Your task to perform on an android device: open app "Google Play Music" (install if not already installed) Image 0: 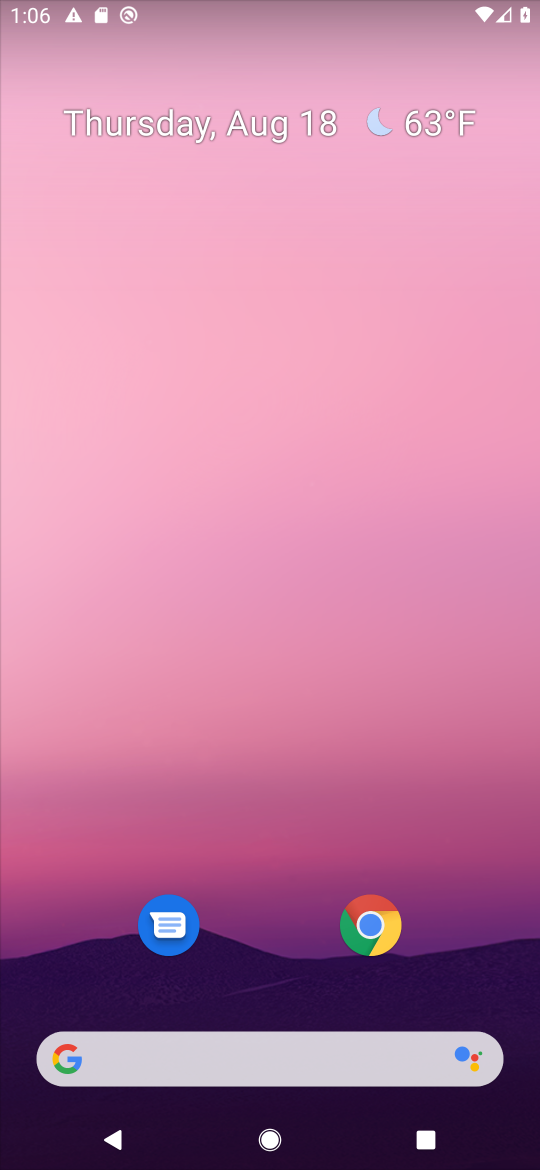
Step 0: drag from (144, 713) to (104, 273)
Your task to perform on an android device: open app "Google Play Music" (install if not already installed) Image 1: 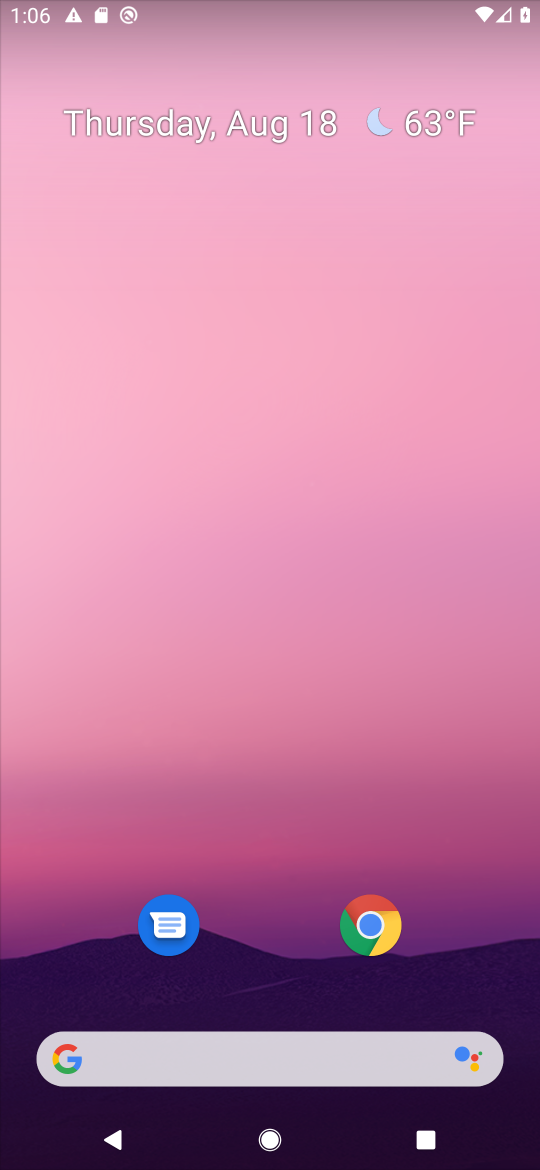
Step 1: drag from (193, 1011) to (174, 401)
Your task to perform on an android device: open app "Google Play Music" (install if not already installed) Image 2: 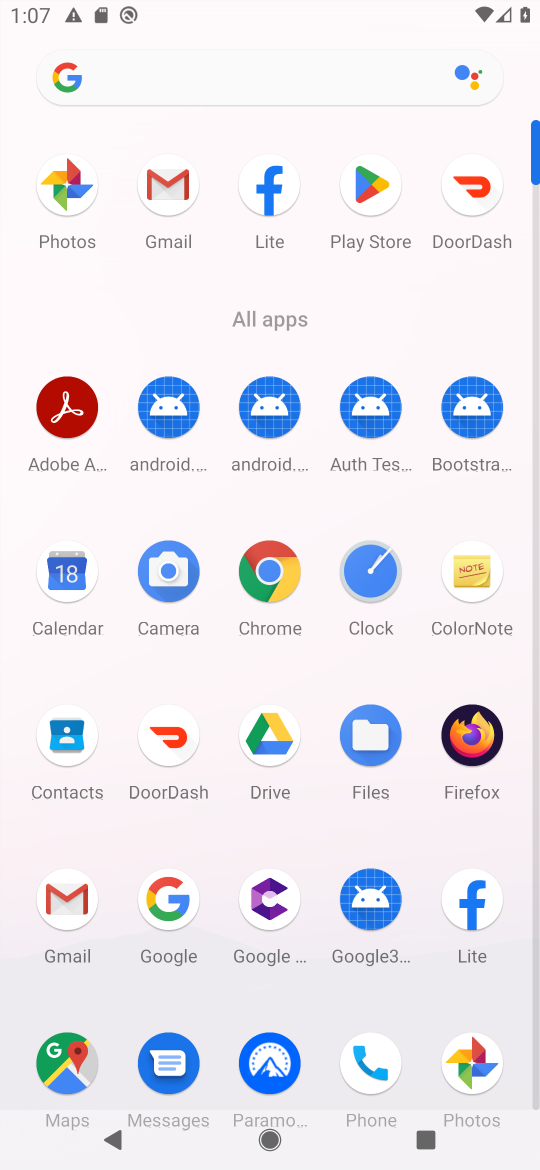
Step 2: click (105, 434)
Your task to perform on an android device: open app "Google Play Music" (install if not already installed) Image 3: 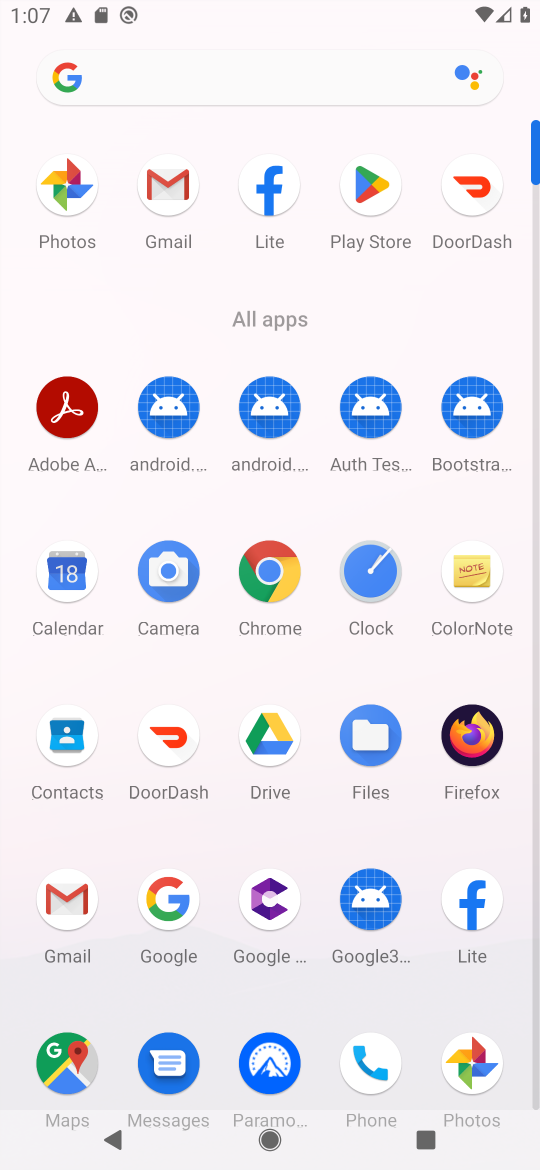
Step 3: click (105, 434)
Your task to perform on an android device: open app "Google Play Music" (install if not already installed) Image 4: 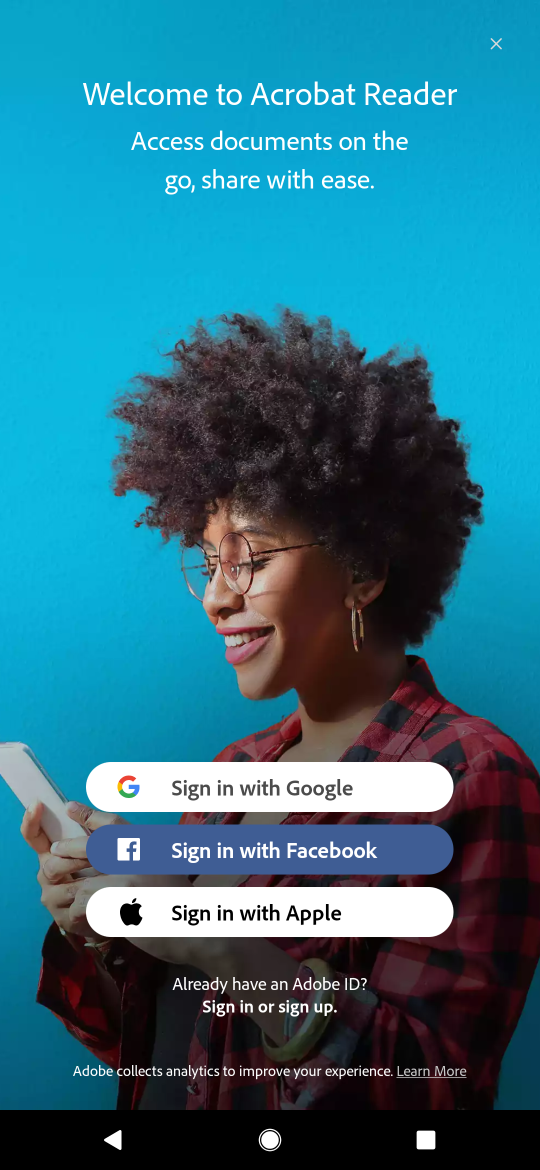
Step 4: click (105, 434)
Your task to perform on an android device: open app "Google Play Music" (install if not already installed) Image 5: 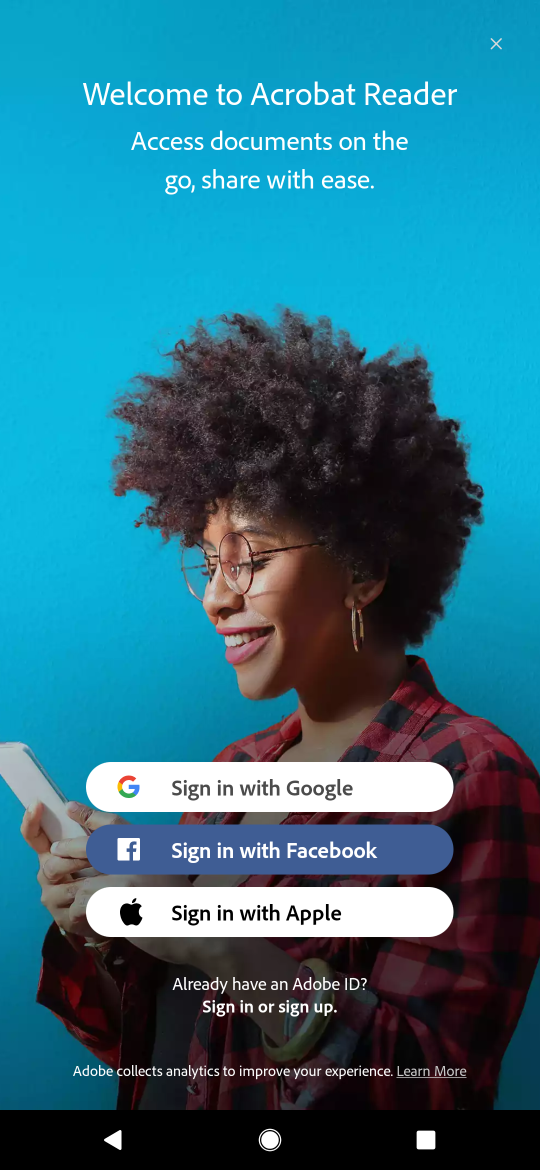
Step 5: task complete